Your task to perform on an android device: Open Wikipedia Image 0: 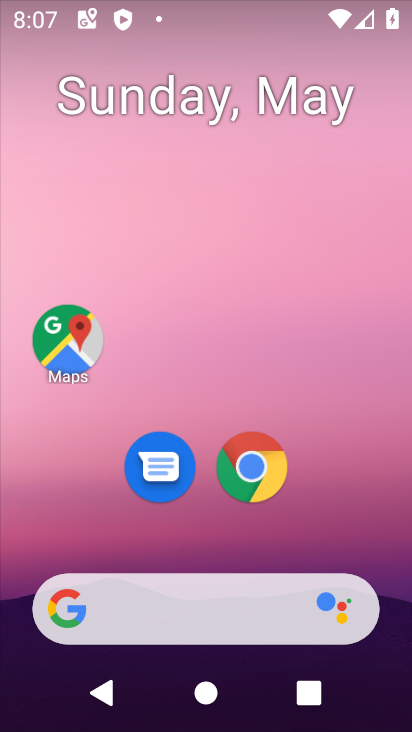
Step 0: click (255, 471)
Your task to perform on an android device: Open Wikipedia Image 1: 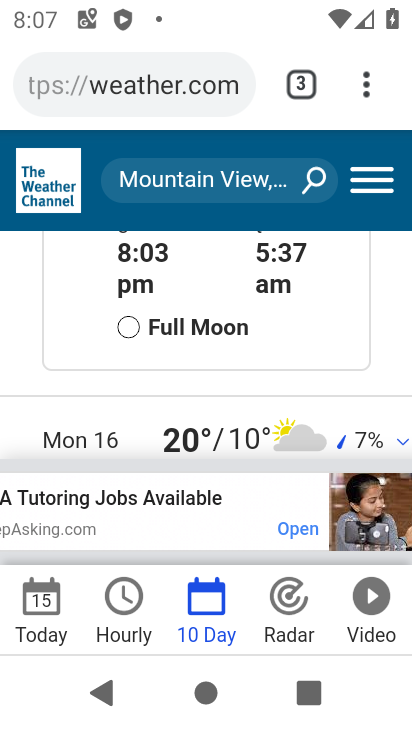
Step 1: click (298, 65)
Your task to perform on an android device: Open Wikipedia Image 2: 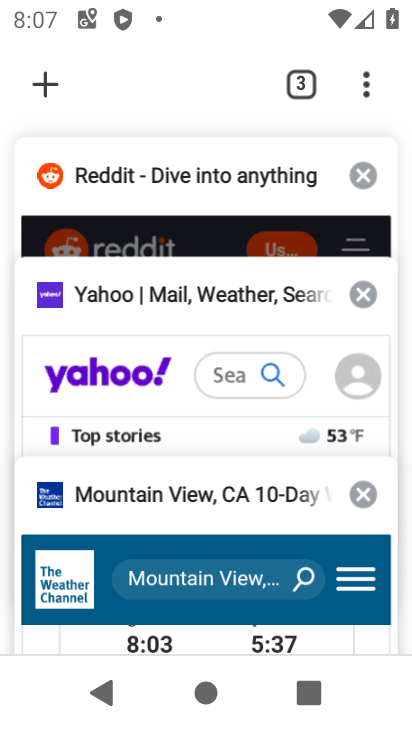
Step 2: click (66, 80)
Your task to perform on an android device: Open Wikipedia Image 3: 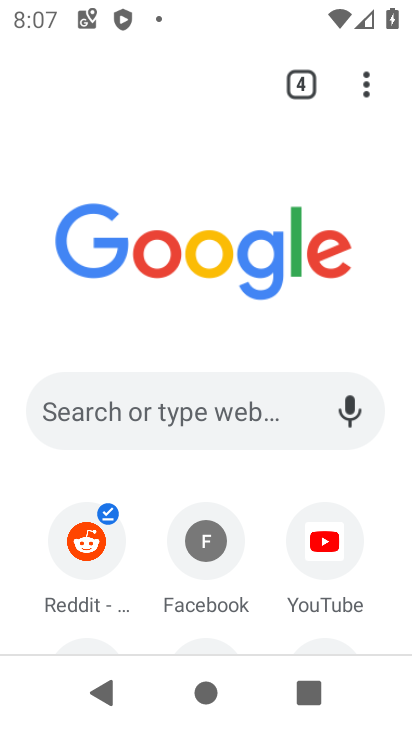
Step 3: drag from (264, 622) to (237, 212)
Your task to perform on an android device: Open Wikipedia Image 4: 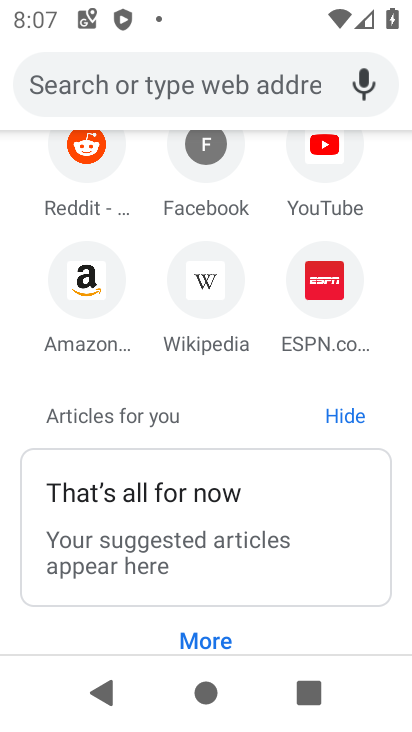
Step 4: click (194, 305)
Your task to perform on an android device: Open Wikipedia Image 5: 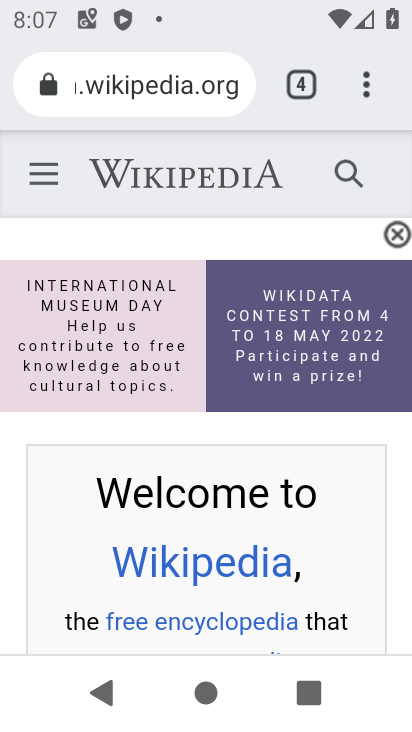
Step 5: task complete